Your task to perform on an android device: turn off picture-in-picture Image 0: 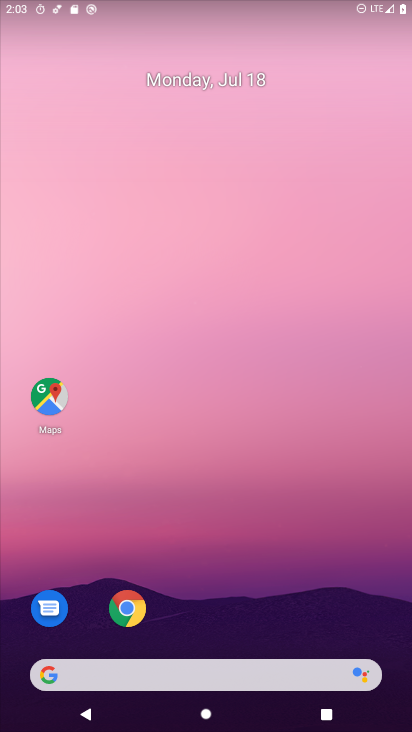
Step 0: drag from (242, 687) to (239, 113)
Your task to perform on an android device: turn off picture-in-picture Image 1: 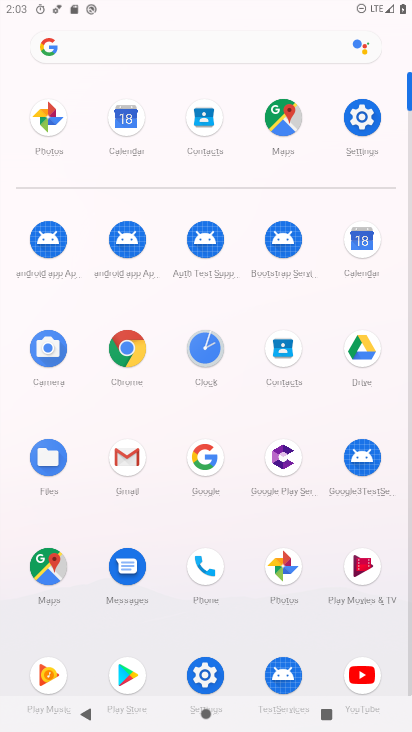
Step 1: click (354, 115)
Your task to perform on an android device: turn off picture-in-picture Image 2: 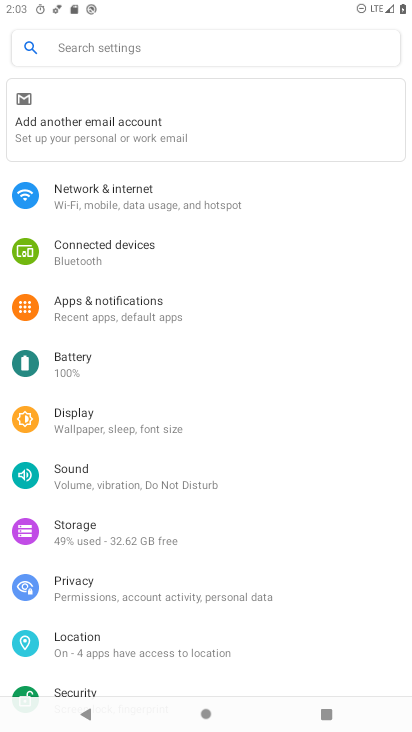
Step 2: click (116, 306)
Your task to perform on an android device: turn off picture-in-picture Image 3: 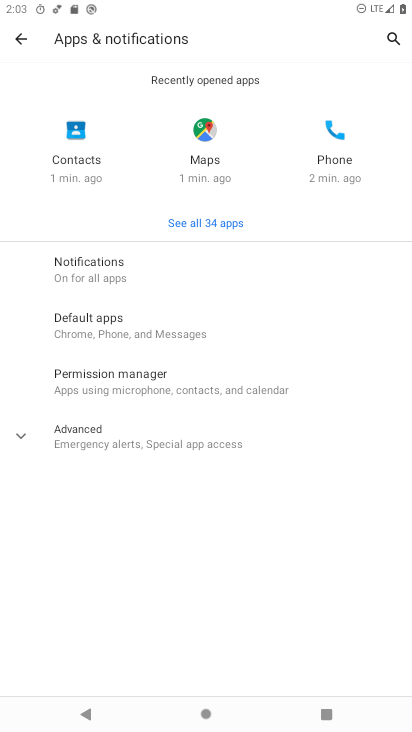
Step 3: click (114, 437)
Your task to perform on an android device: turn off picture-in-picture Image 4: 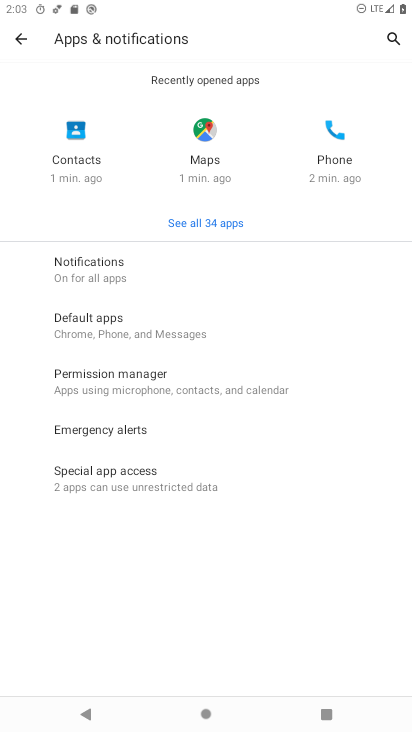
Step 4: click (95, 480)
Your task to perform on an android device: turn off picture-in-picture Image 5: 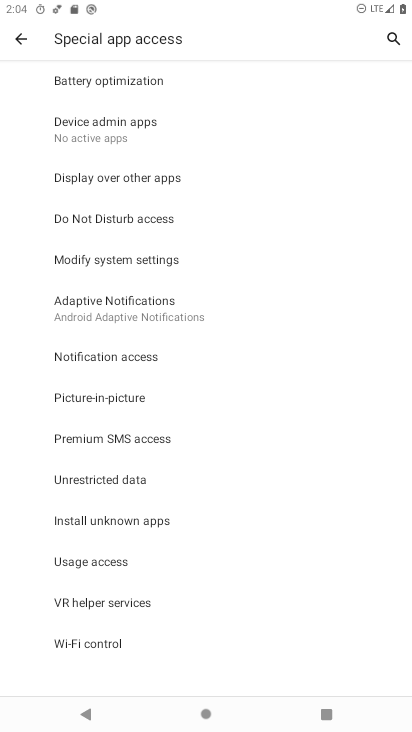
Step 5: click (110, 396)
Your task to perform on an android device: turn off picture-in-picture Image 6: 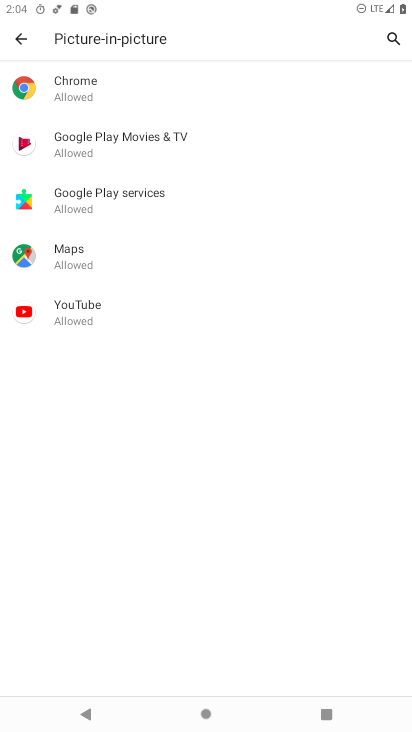
Step 6: click (80, 304)
Your task to perform on an android device: turn off picture-in-picture Image 7: 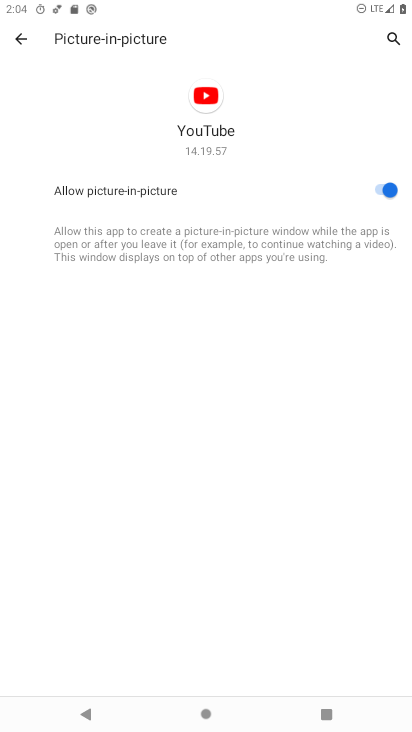
Step 7: click (382, 189)
Your task to perform on an android device: turn off picture-in-picture Image 8: 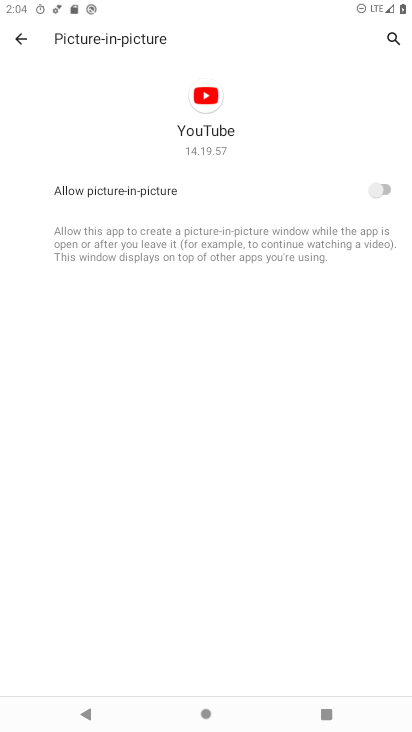
Step 8: task complete